Your task to perform on an android device: toggle javascript in the chrome app Image 0: 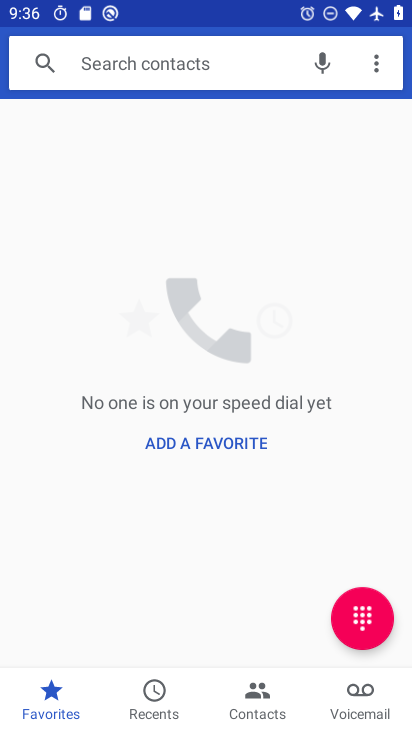
Step 0: press home button
Your task to perform on an android device: toggle javascript in the chrome app Image 1: 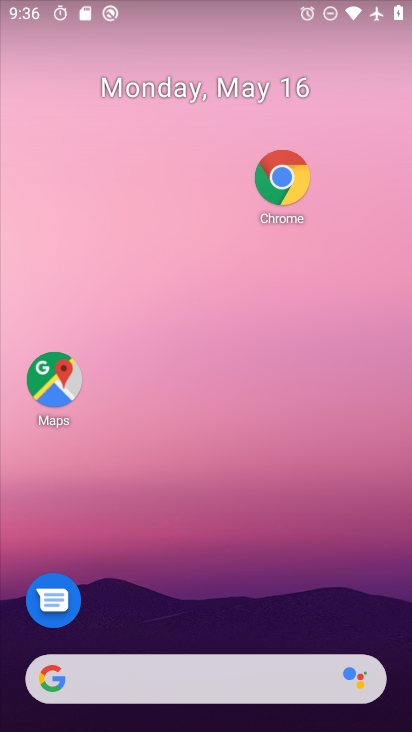
Step 1: click (278, 196)
Your task to perform on an android device: toggle javascript in the chrome app Image 2: 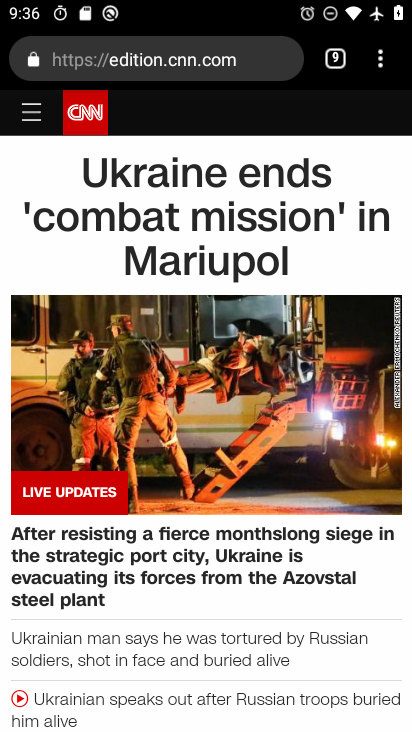
Step 2: drag from (384, 69) to (241, 641)
Your task to perform on an android device: toggle javascript in the chrome app Image 3: 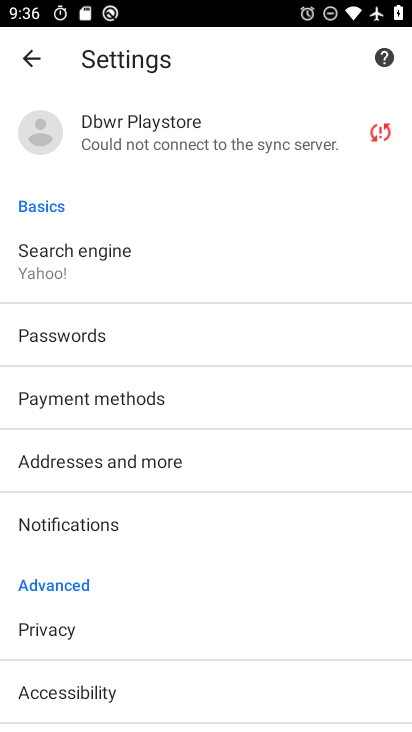
Step 3: drag from (203, 634) to (340, 311)
Your task to perform on an android device: toggle javascript in the chrome app Image 4: 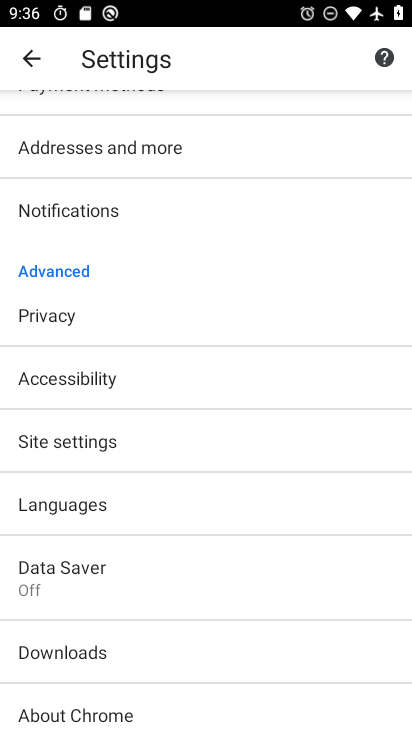
Step 4: click (106, 446)
Your task to perform on an android device: toggle javascript in the chrome app Image 5: 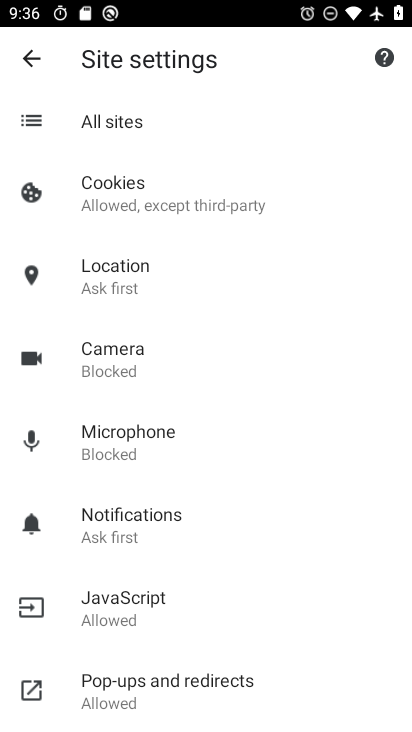
Step 5: click (129, 598)
Your task to perform on an android device: toggle javascript in the chrome app Image 6: 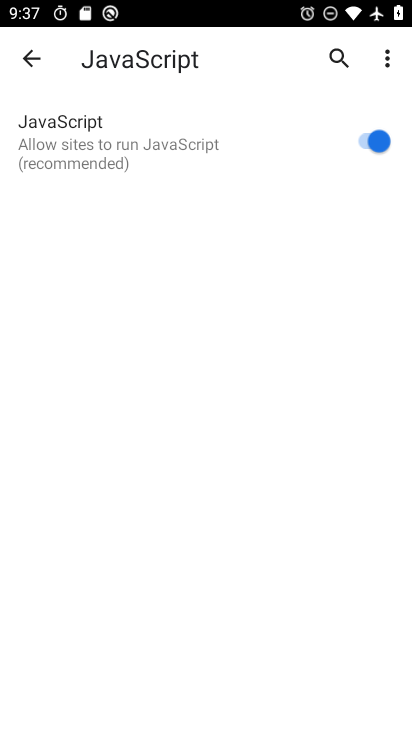
Step 6: click (362, 141)
Your task to perform on an android device: toggle javascript in the chrome app Image 7: 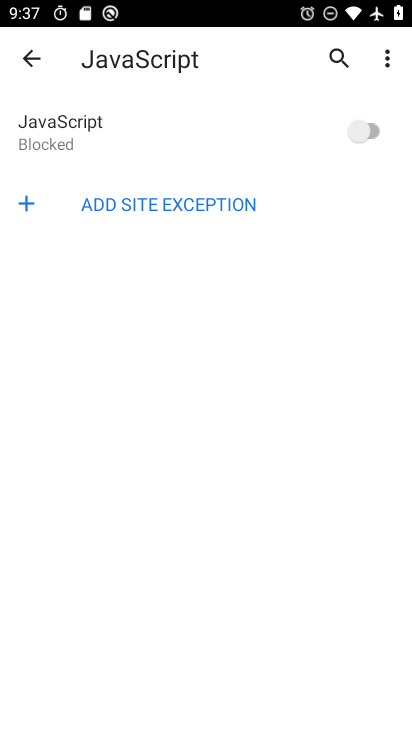
Step 7: task complete